Your task to perform on an android device: Go to battery settings Image 0: 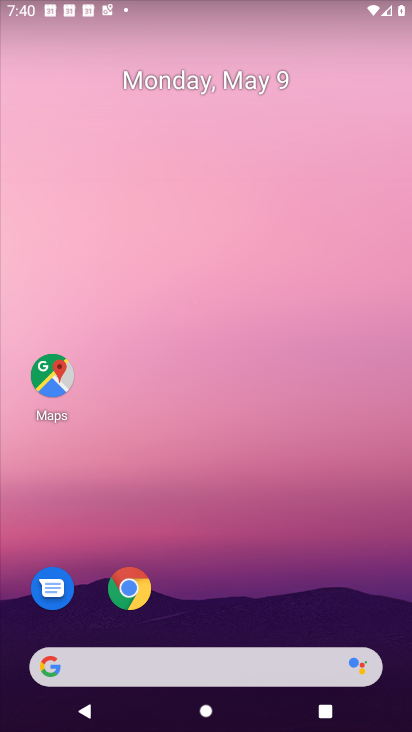
Step 0: press home button
Your task to perform on an android device: Go to battery settings Image 1: 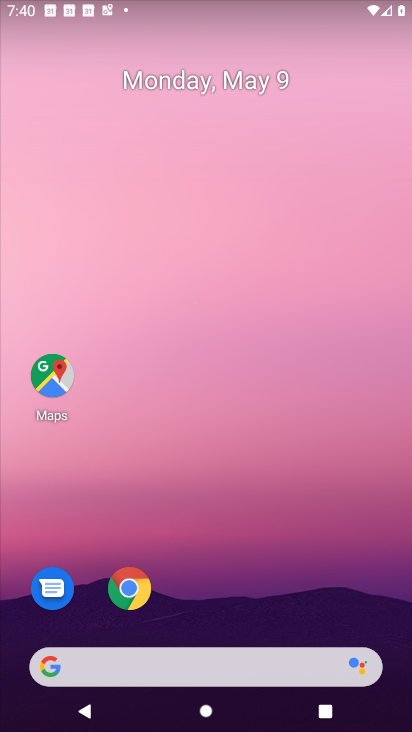
Step 1: drag from (152, 670) to (252, 30)
Your task to perform on an android device: Go to battery settings Image 2: 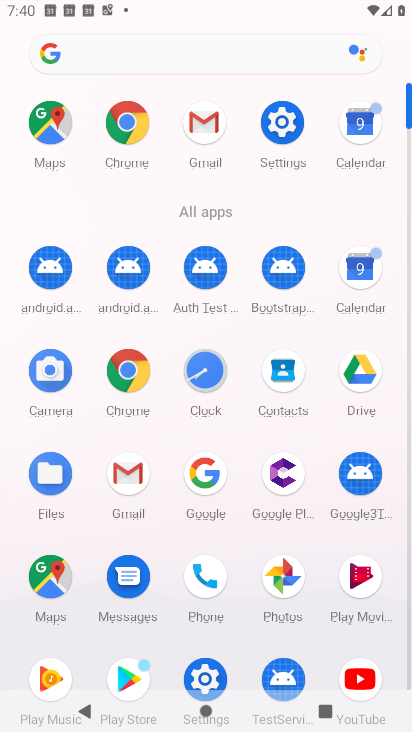
Step 2: click (278, 132)
Your task to perform on an android device: Go to battery settings Image 3: 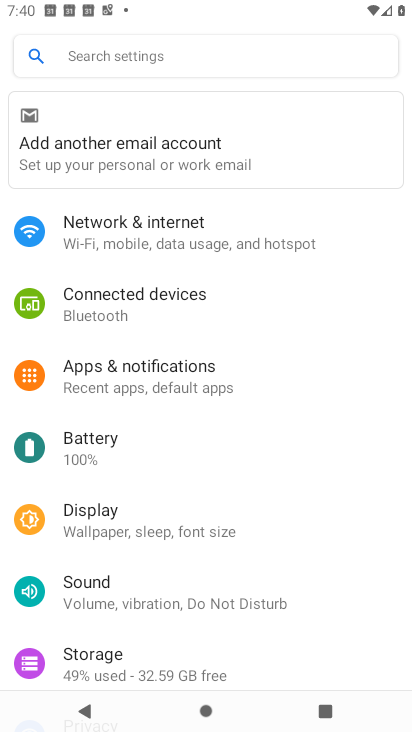
Step 3: click (92, 447)
Your task to perform on an android device: Go to battery settings Image 4: 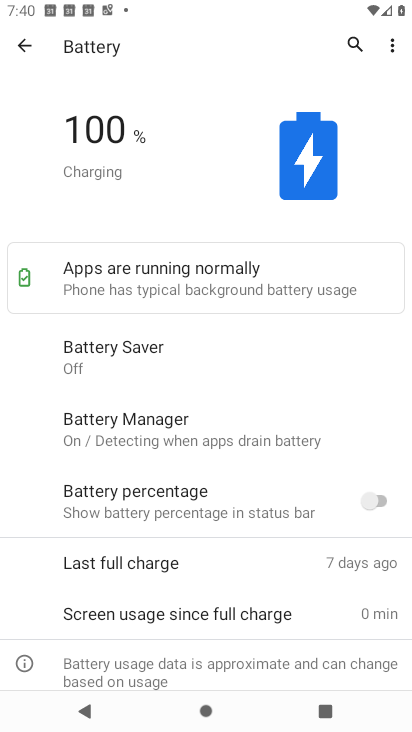
Step 4: task complete